Your task to perform on an android device: toggle pop-ups in chrome Image 0: 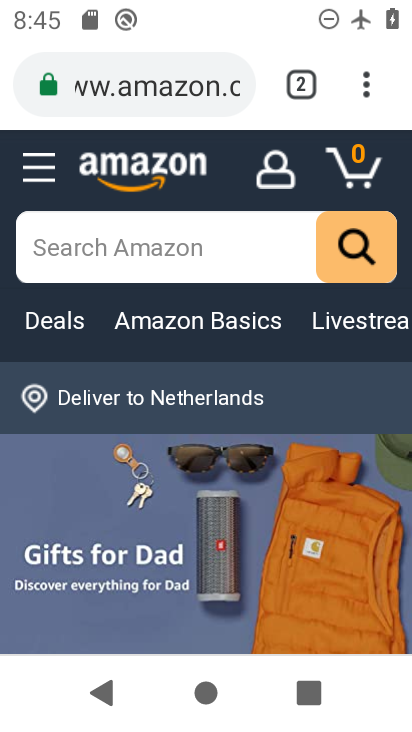
Step 0: click (362, 91)
Your task to perform on an android device: toggle pop-ups in chrome Image 1: 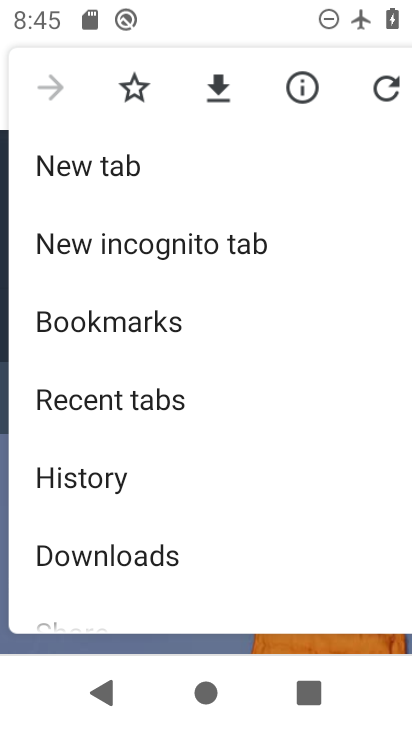
Step 1: drag from (109, 541) to (149, 248)
Your task to perform on an android device: toggle pop-ups in chrome Image 2: 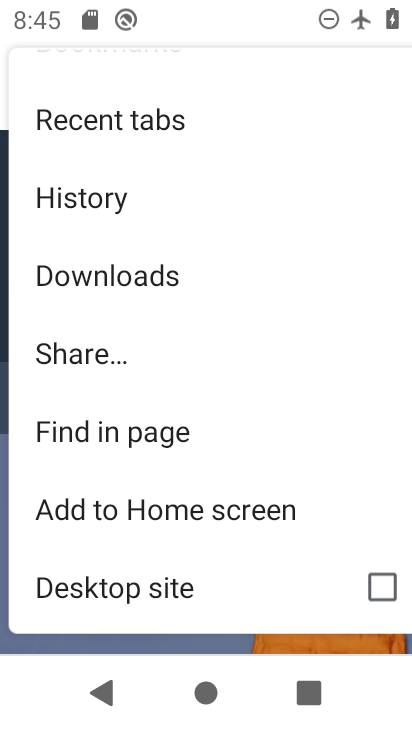
Step 2: drag from (150, 525) to (186, 323)
Your task to perform on an android device: toggle pop-ups in chrome Image 3: 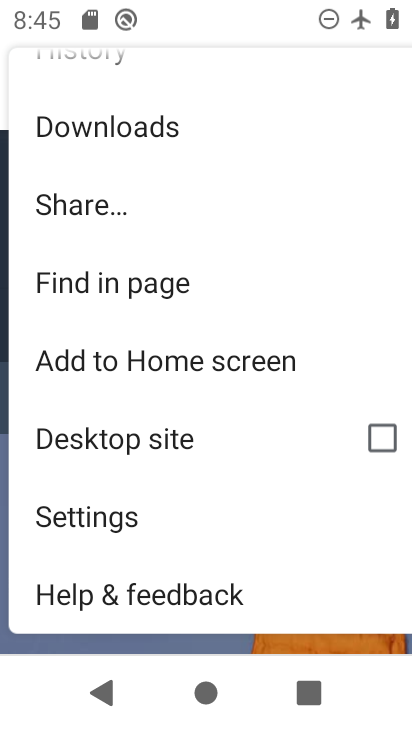
Step 3: click (114, 515)
Your task to perform on an android device: toggle pop-ups in chrome Image 4: 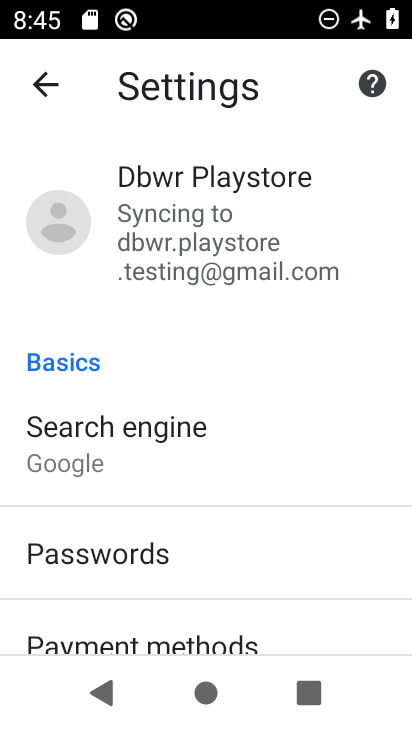
Step 4: drag from (126, 571) to (136, 452)
Your task to perform on an android device: toggle pop-ups in chrome Image 5: 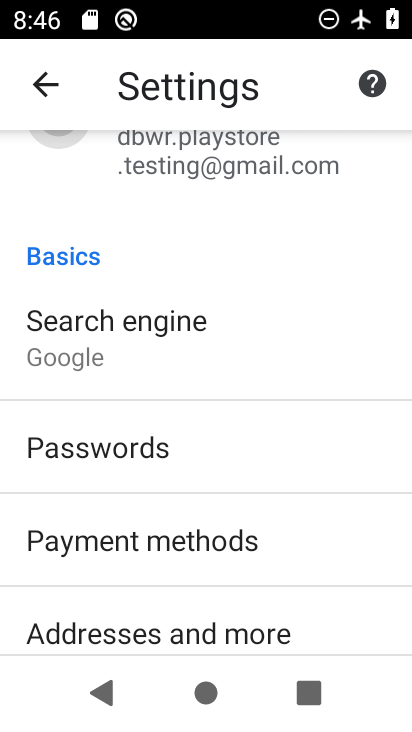
Step 5: drag from (123, 512) to (154, 311)
Your task to perform on an android device: toggle pop-ups in chrome Image 6: 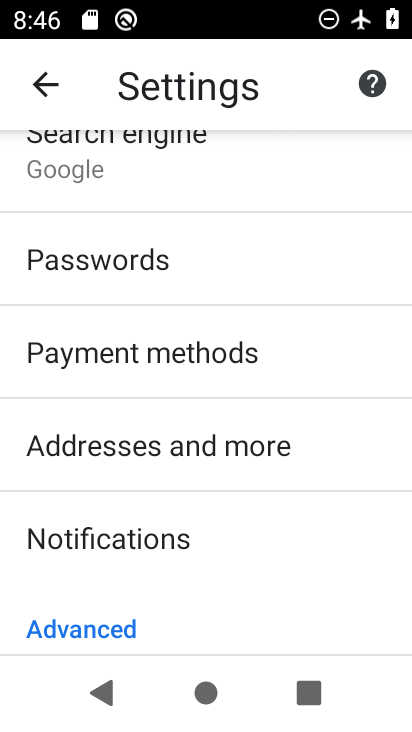
Step 6: drag from (146, 551) to (188, 278)
Your task to perform on an android device: toggle pop-ups in chrome Image 7: 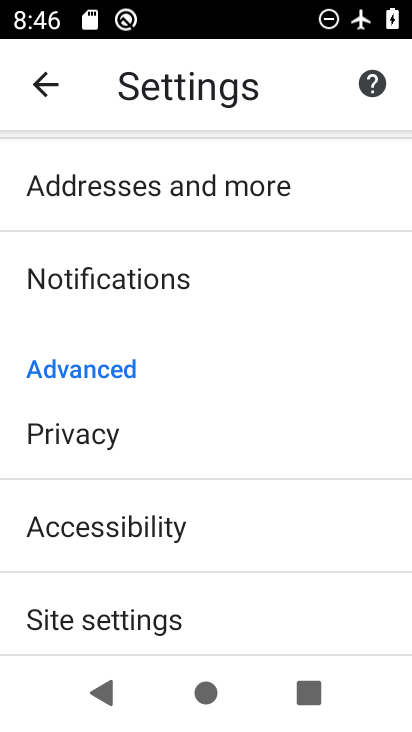
Step 7: click (102, 600)
Your task to perform on an android device: toggle pop-ups in chrome Image 8: 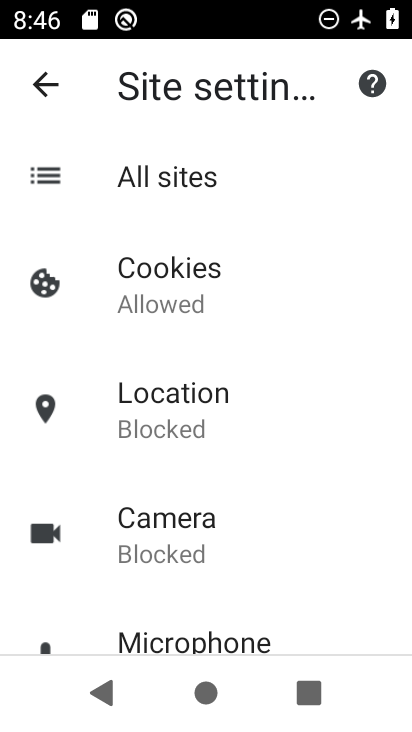
Step 8: drag from (190, 505) to (205, 336)
Your task to perform on an android device: toggle pop-ups in chrome Image 9: 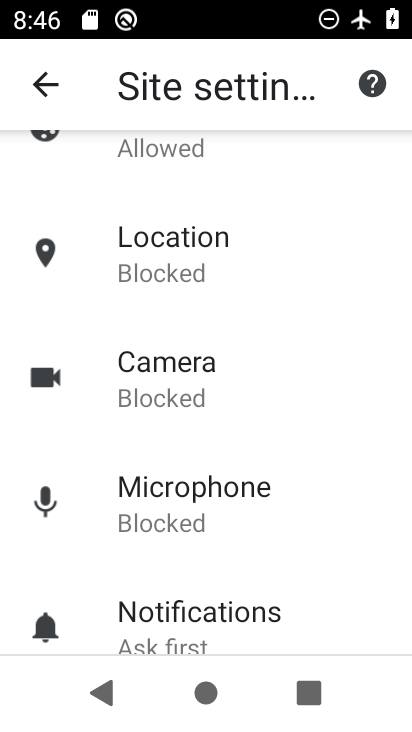
Step 9: drag from (183, 556) to (209, 424)
Your task to perform on an android device: toggle pop-ups in chrome Image 10: 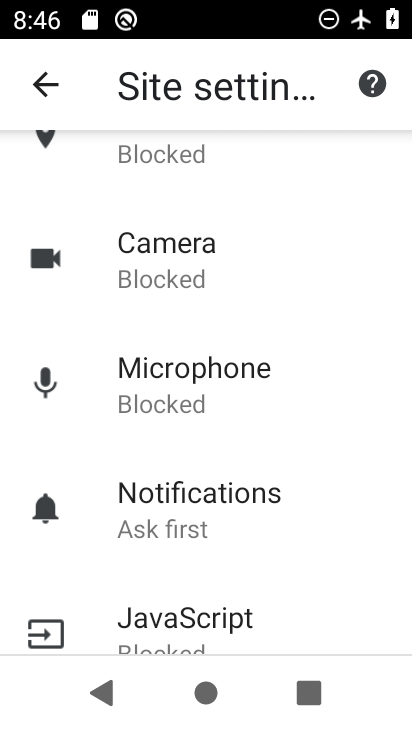
Step 10: drag from (174, 637) to (243, 301)
Your task to perform on an android device: toggle pop-ups in chrome Image 11: 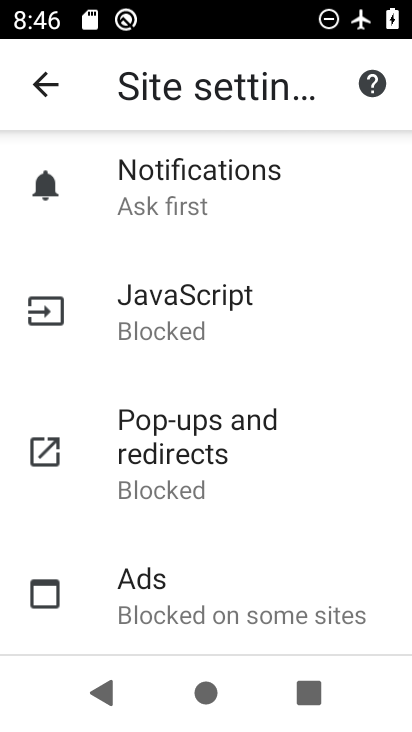
Step 11: click (221, 437)
Your task to perform on an android device: toggle pop-ups in chrome Image 12: 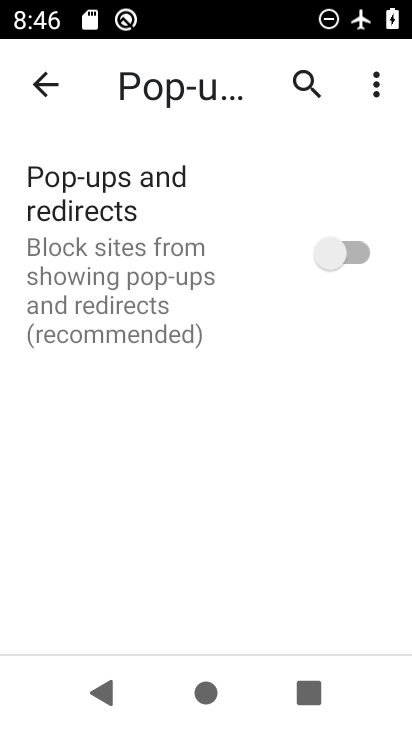
Step 12: click (360, 253)
Your task to perform on an android device: toggle pop-ups in chrome Image 13: 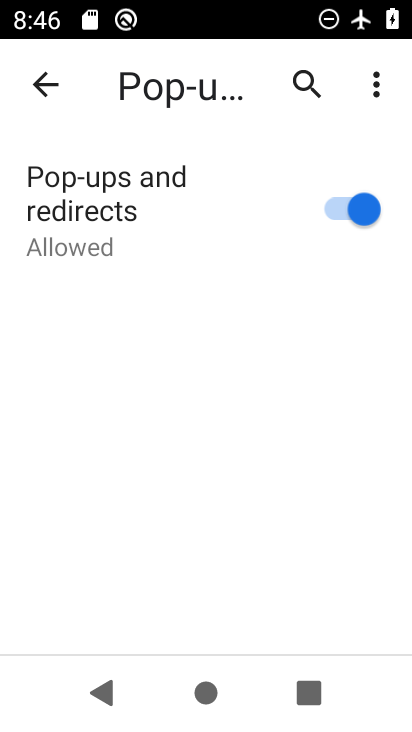
Step 13: task complete